Your task to perform on an android device: Go to network settings Image 0: 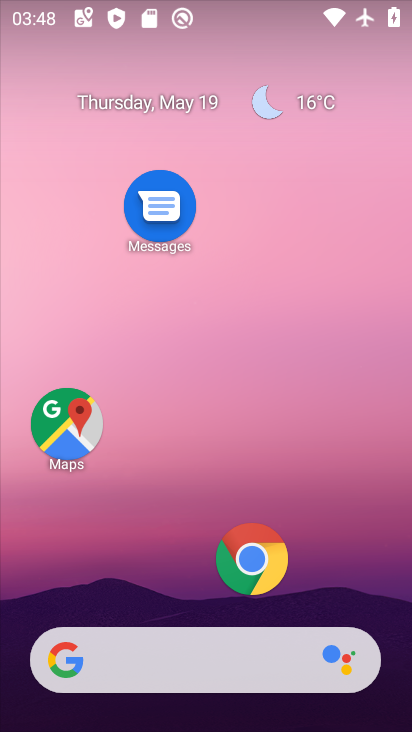
Step 0: drag from (183, 610) to (191, 321)
Your task to perform on an android device: Go to network settings Image 1: 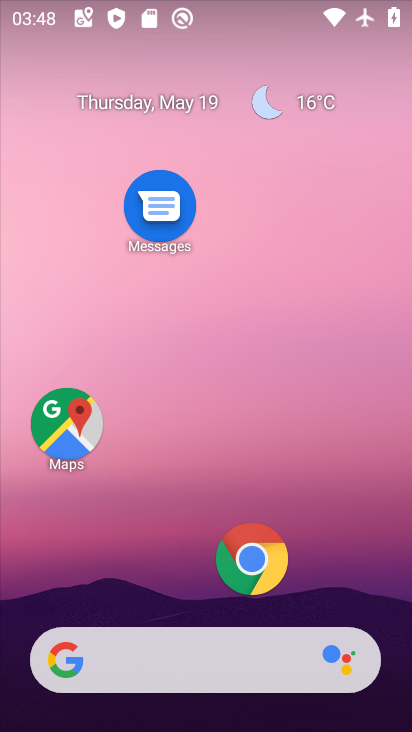
Step 1: drag from (185, 597) to (209, 313)
Your task to perform on an android device: Go to network settings Image 2: 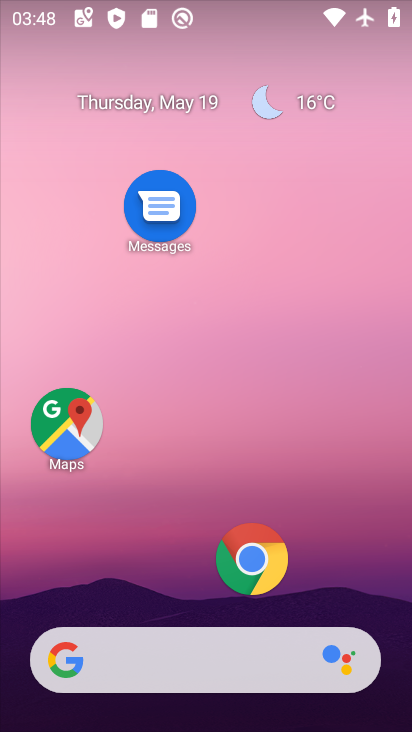
Step 2: drag from (194, 604) to (223, 168)
Your task to perform on an android device: Go to network settings Image 3: 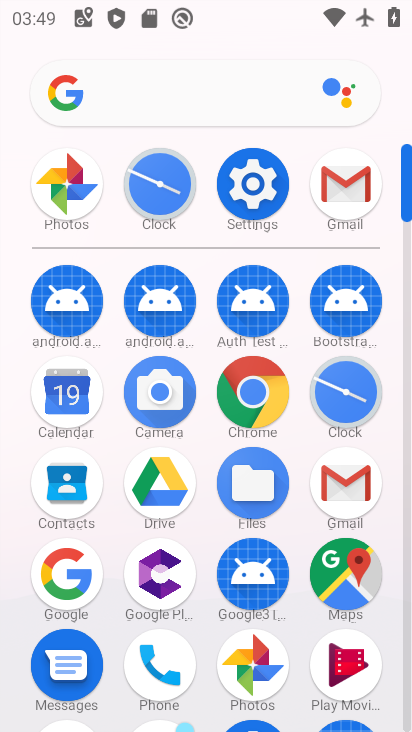
Step 3: click (258, 198)
Your task to perform on an android device: Go to network settings Image 4: 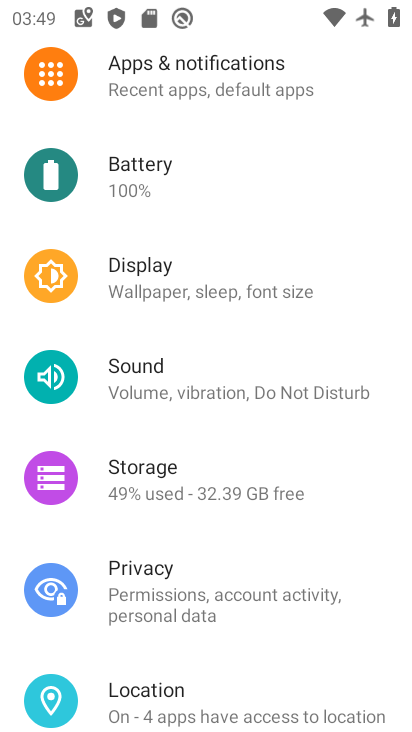
Step 4: drag from (193, 129) to (245, 583)
Your task to perform on an android device: Go to network settings Image 5: 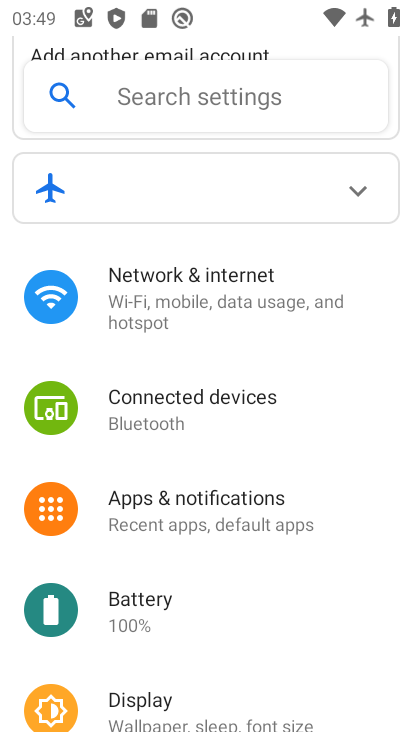
Step 5: click (231, 257)
Your task to perform on an android device: Go to network settings Image 6: 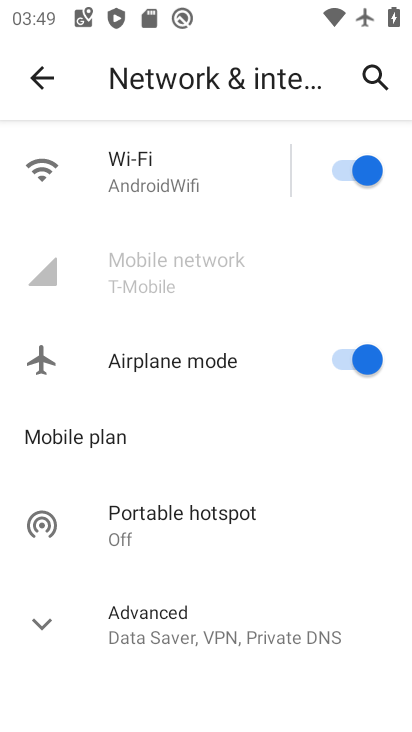
Step 6: task complete